Your task to perform on an android device: check data usage Image 0: 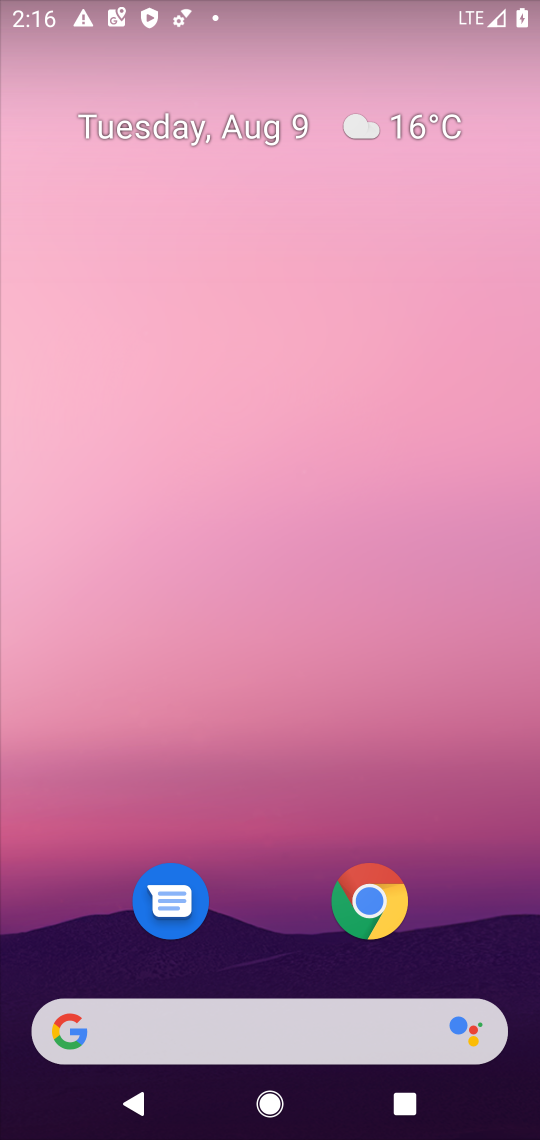
Step 0: drag from (481, 775) to (444, 291)
Your task to perform on an android device: check data usage Image 1: 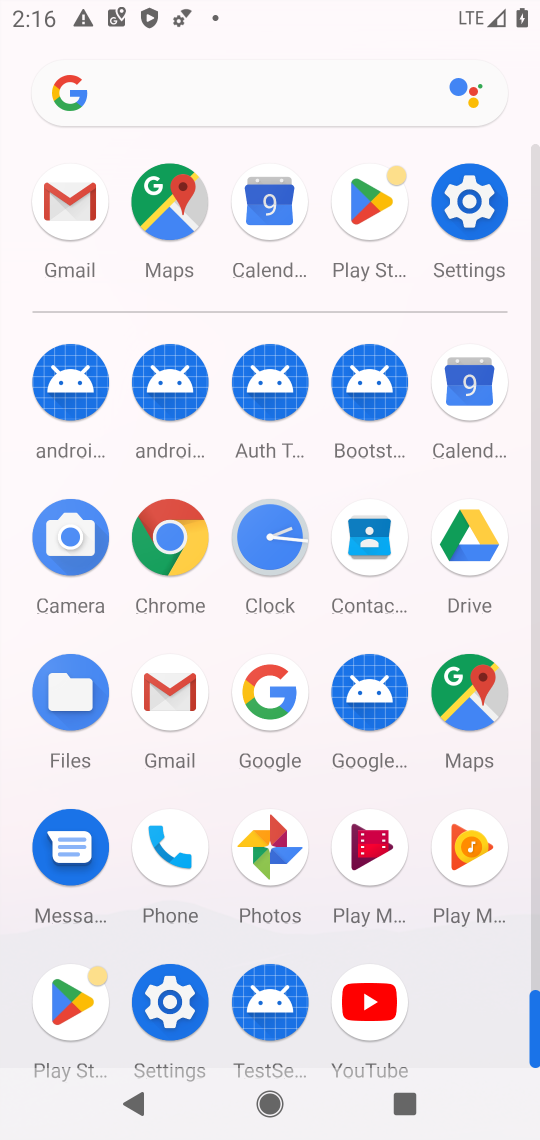
Step 1: click (170, 999)
Your task to perform on an android device: check data usage Image 2: 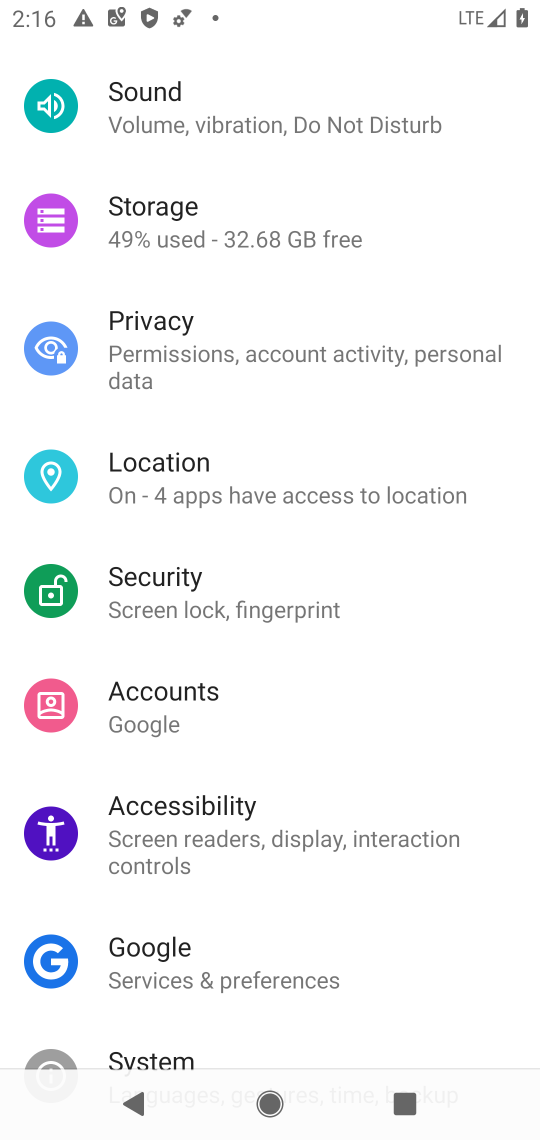
Step 2: drag from (478, 247) to (452, 927)
Your task to perform on an android device: check data usage Image 3: 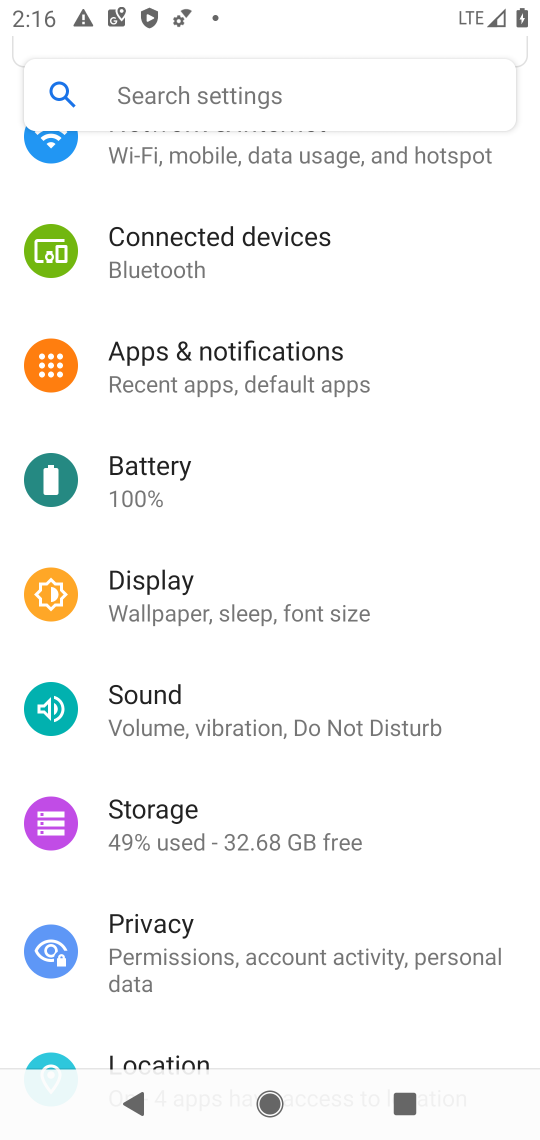
Step 3: drag from (446, 442) to (447, 822)
Your task to perform on an android device: check data usage Image 4: 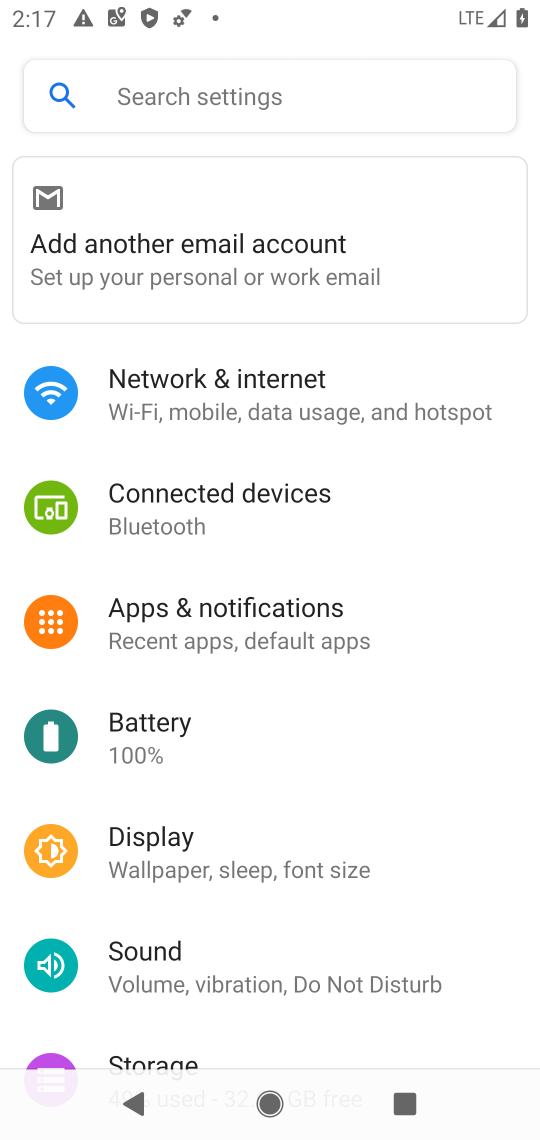
Step 4: click (150, 381)
Your task to perform on an android device: check data usage Image 5: 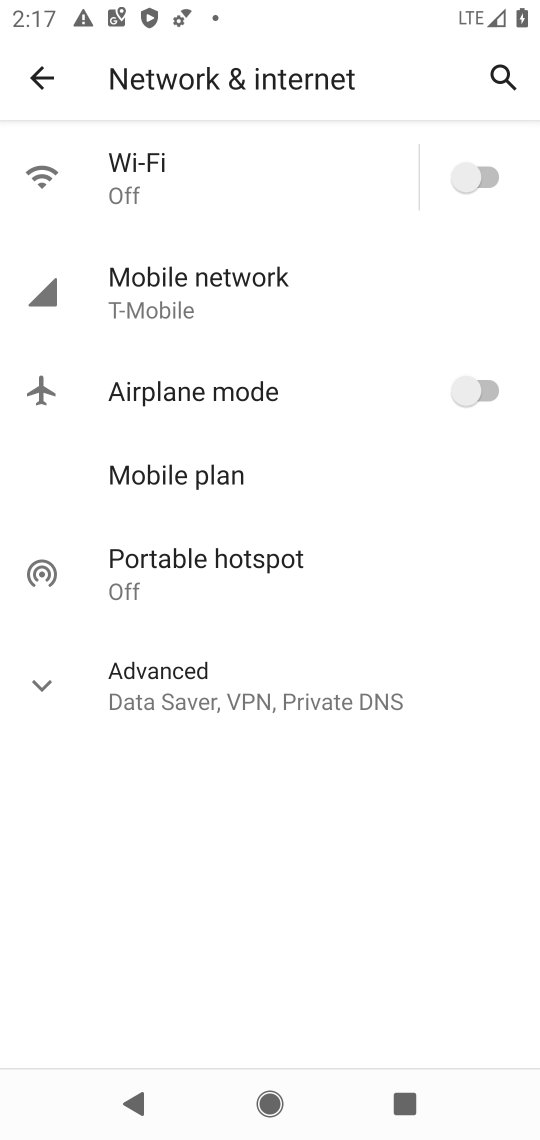
Step 5: click (160, 282)
Your task to perform on an android device: check data usage Image 6: 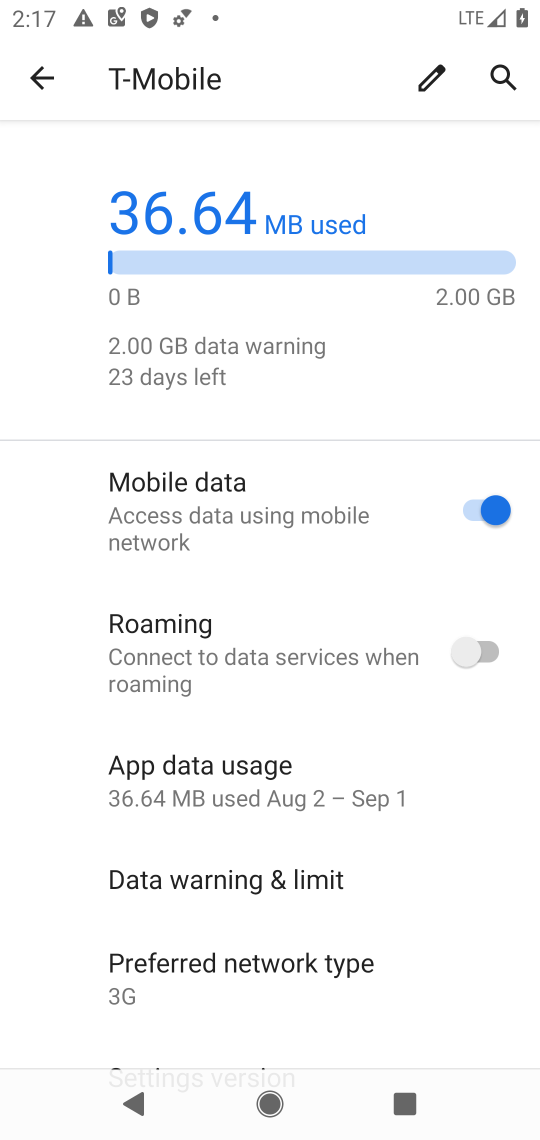
Step 6: task complete